Your task to perform on an android device: toggle improve location accuracy Image 0: 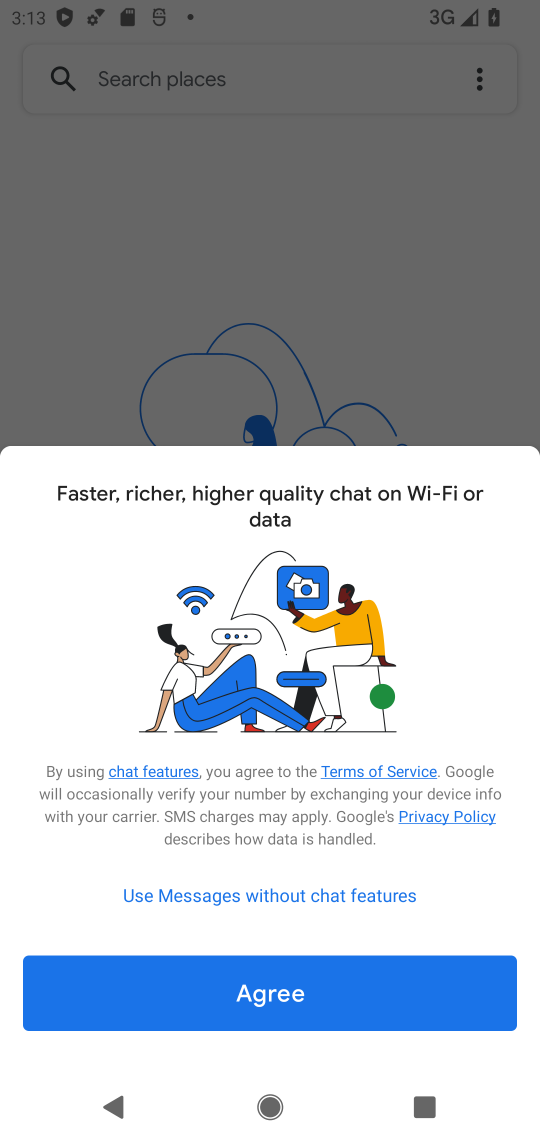
Step 0: press home button
Your task to perform on an android device: toggle improve location accuracy Image 1: 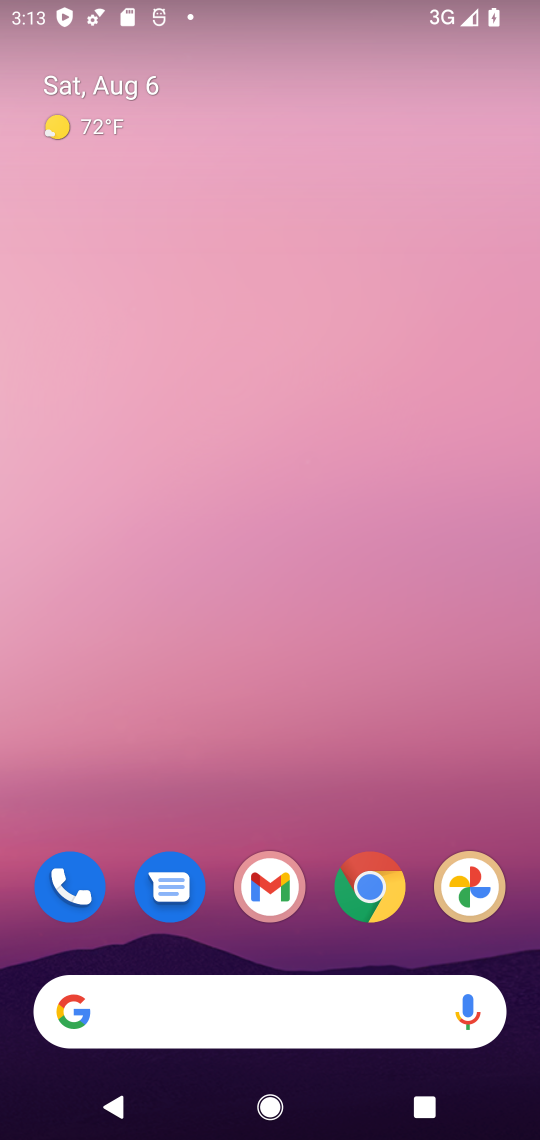
Step 1: click (533, 712)
Your task to perform on an android device: toggle improve location accuracy Image 2: 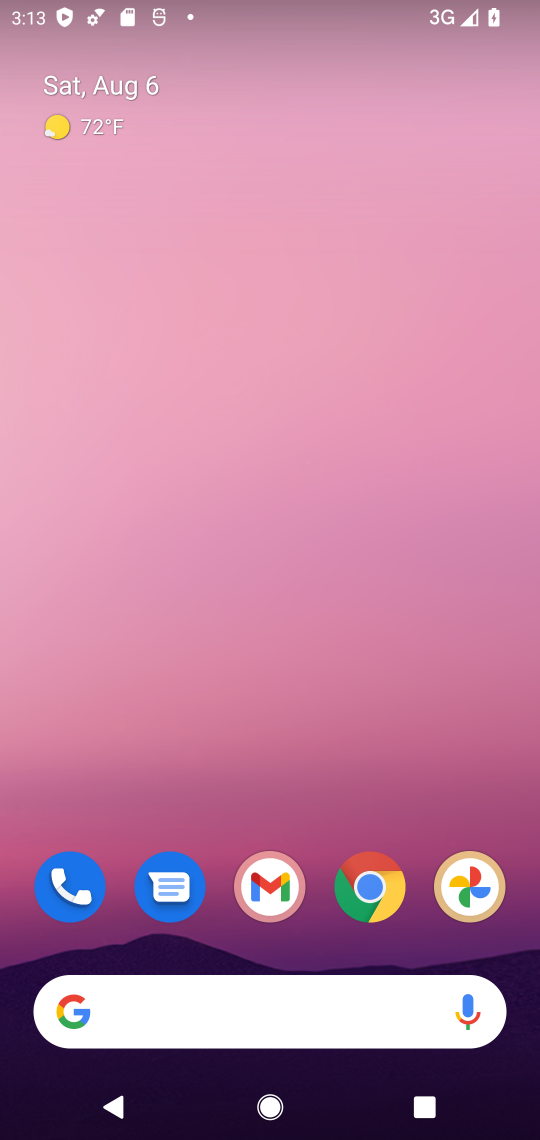
Step 2: drag from (402, 769) to (382, 231)
Your task to perform on an android device: toggle improve location accuracy Image 3: 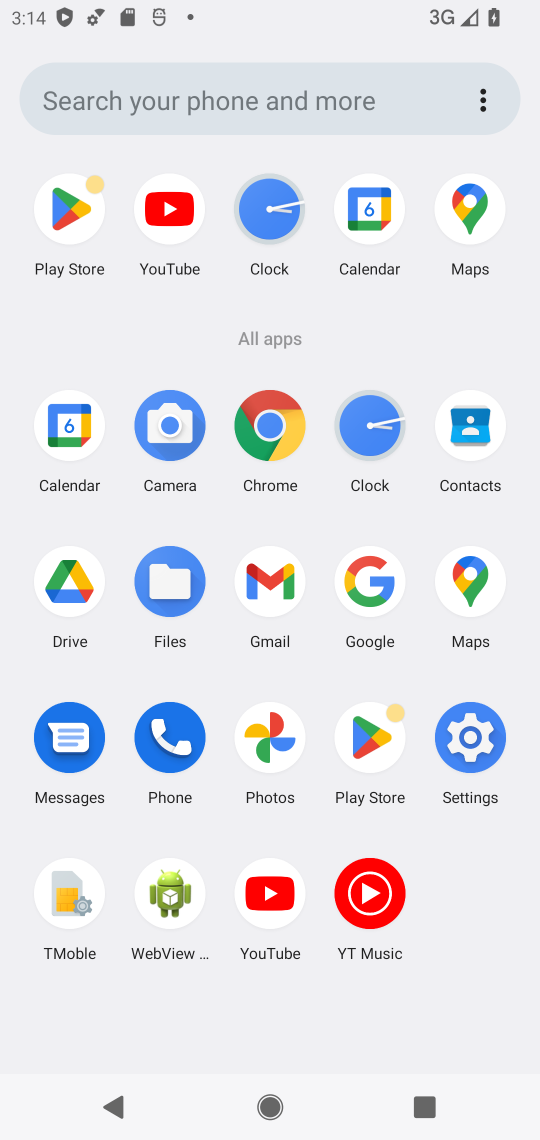
Step 3: click (470, 739)
Your task to perform on an android device: toggle improve location accuracy Image 4: 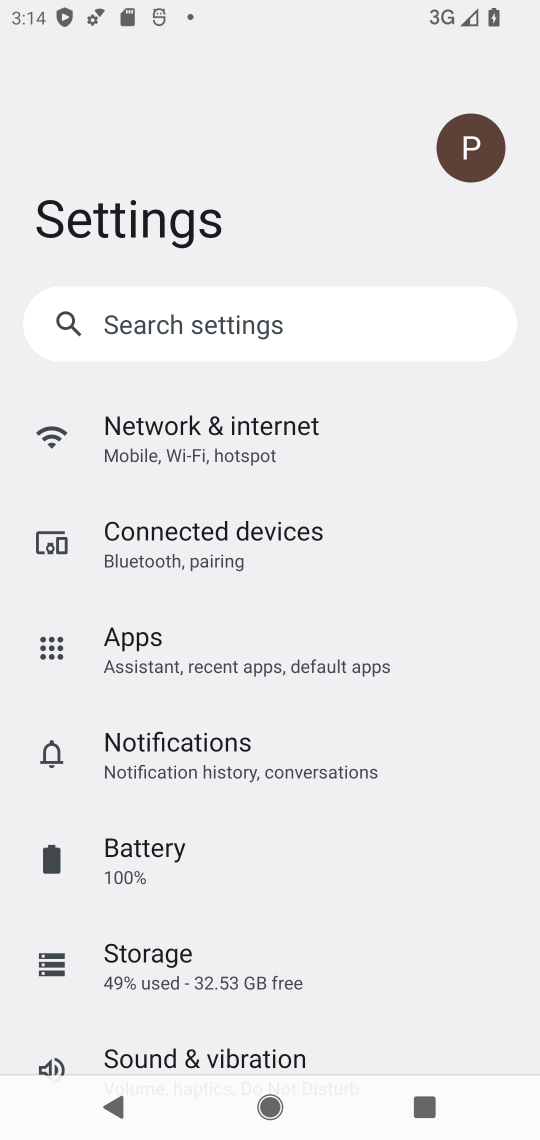
Step 4: drag from (437, 894) to (451, 762)
Your task to perform on an android device: toggle improve location accuracy Image 5: 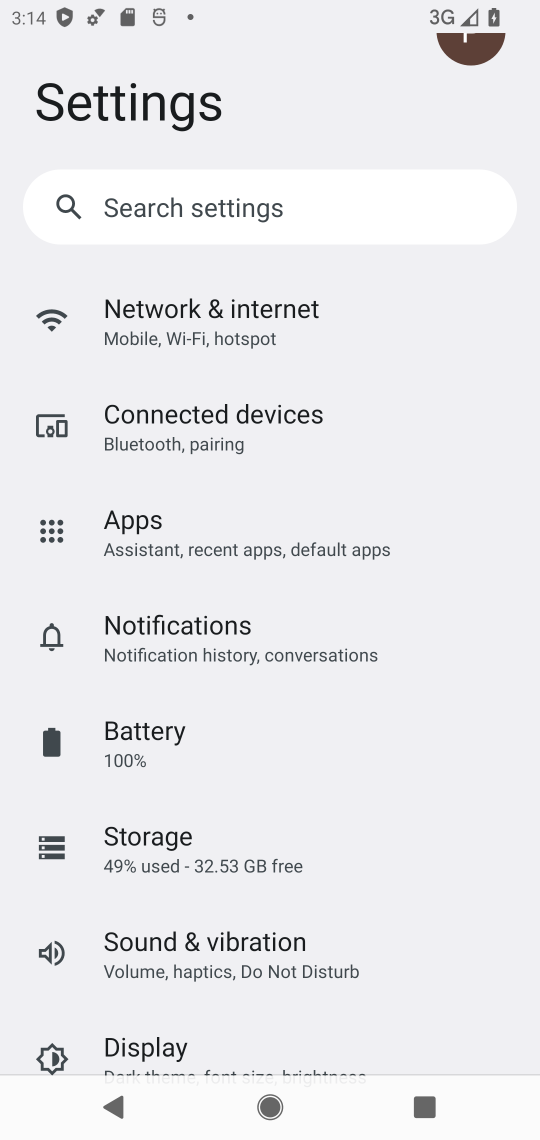
Step 5: drag from (418, 904) to (434, 797)
Your task to perform on an android device: toggle improve location accuracy Image 6: 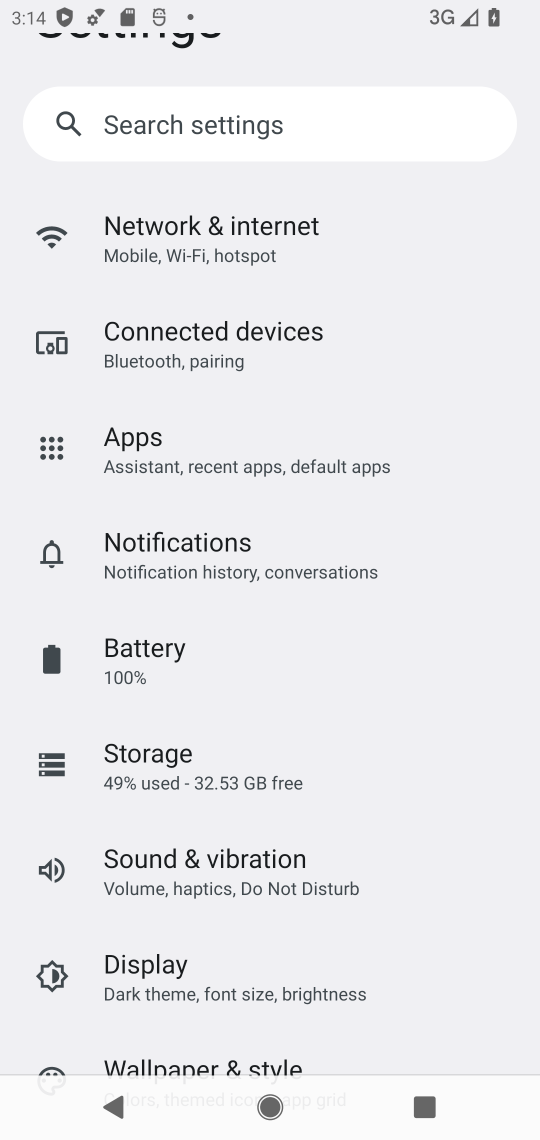
Step 6: drag from (441, 964) to (464, 820)
Your task to perform on an android device: toggle improve location accuracy Image 7: 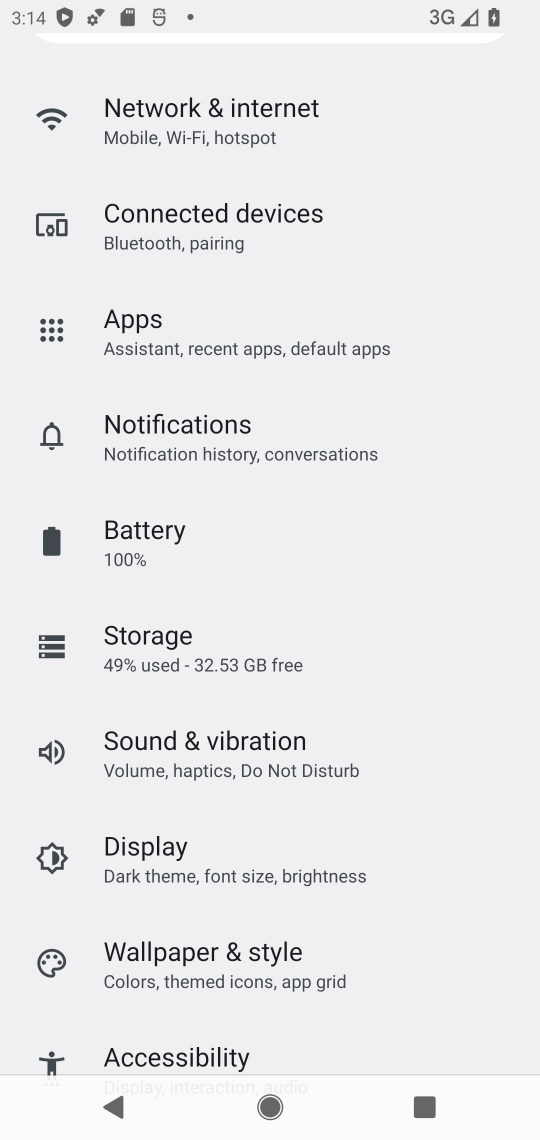
Step 7: drag from (438, 947) to (452, 830)
Your task to perform on an android device: toggle improve location accuracy Image 8: 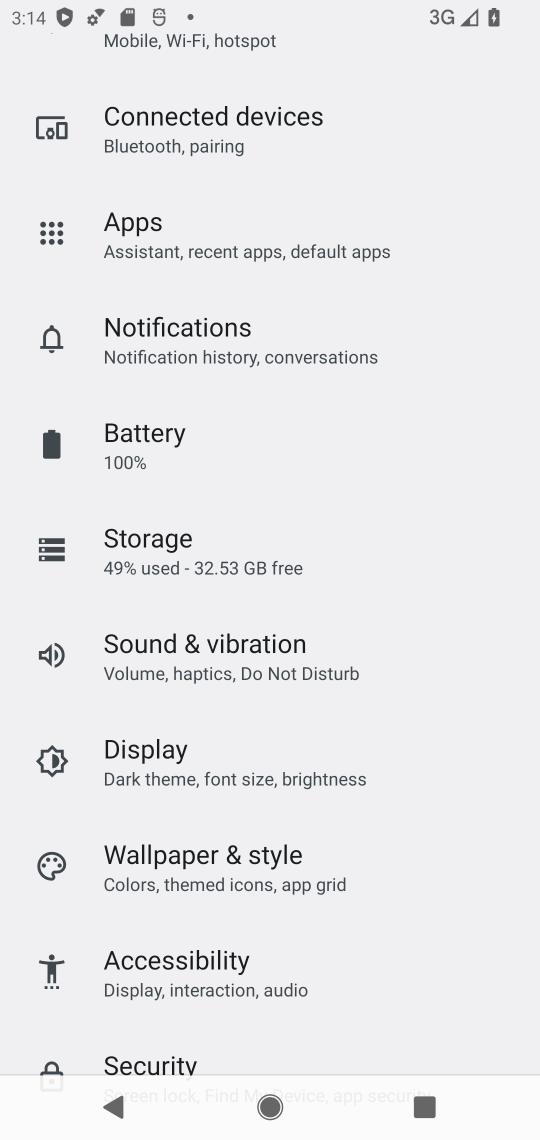
Step 8: drag from (443, 972) to (441, 784)
Your task to perform on an android device: toggle improve location accuracy Image 9: 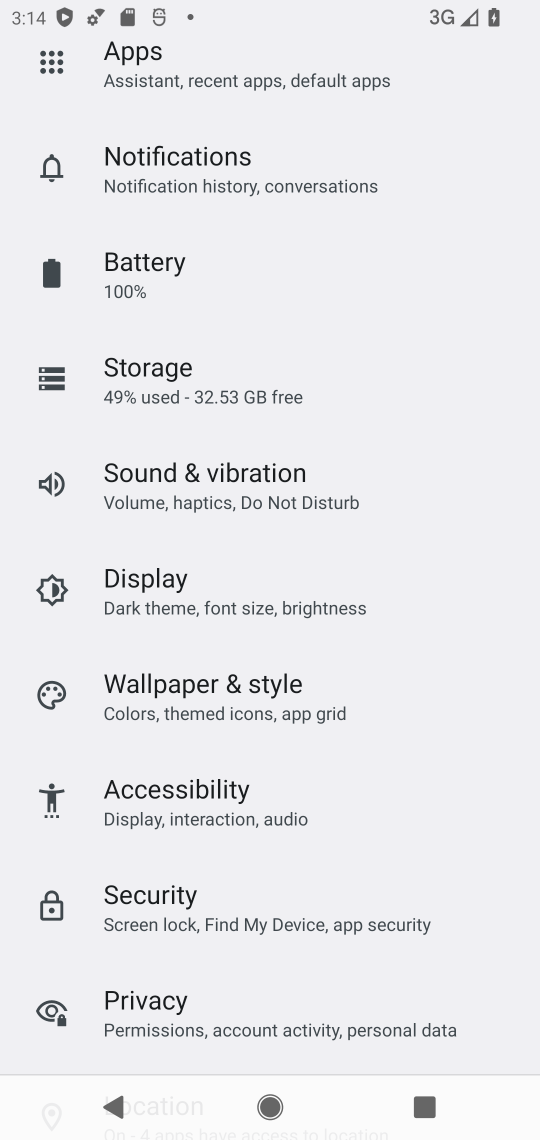
Step 9: drag from (424, 954) to (436, 763)
Your task to perform on an android device: toggle improve location accuracy Image 10: 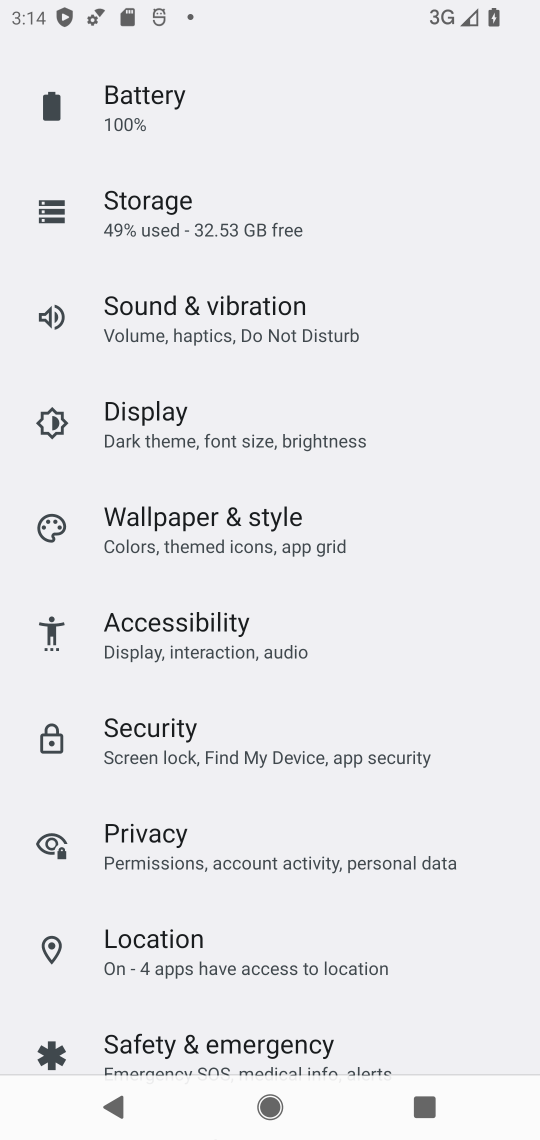
Step 10: drag from (441, 1000) to (467, 756)
Your task to perform on an android device: toggle improve location accuracy Image 11: 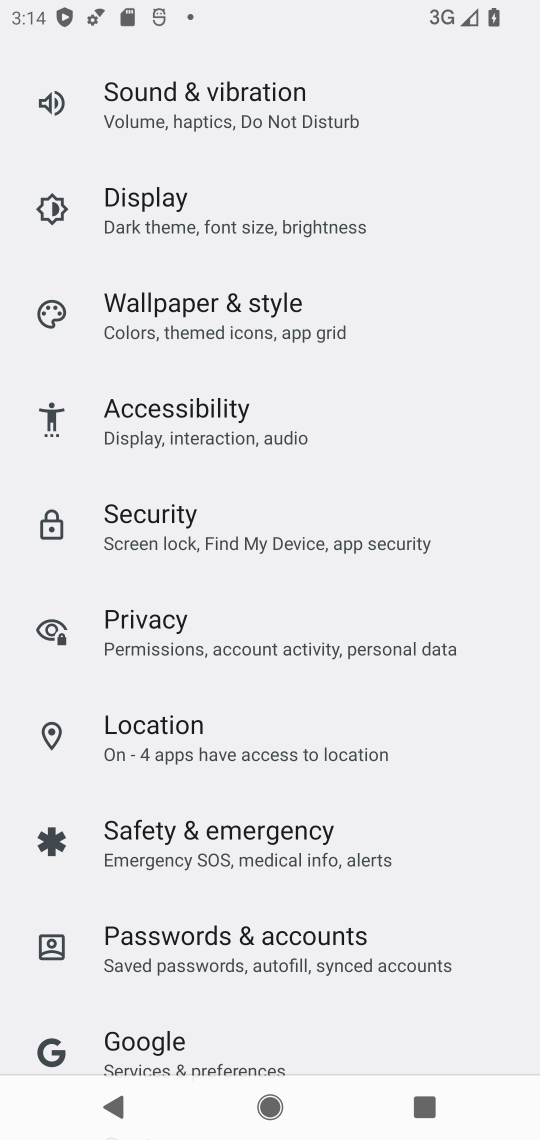
Step 11: drag from (442, 948) to (446, 716)
Your task to perform on an android device: toggle improve location accuracy Image 12: 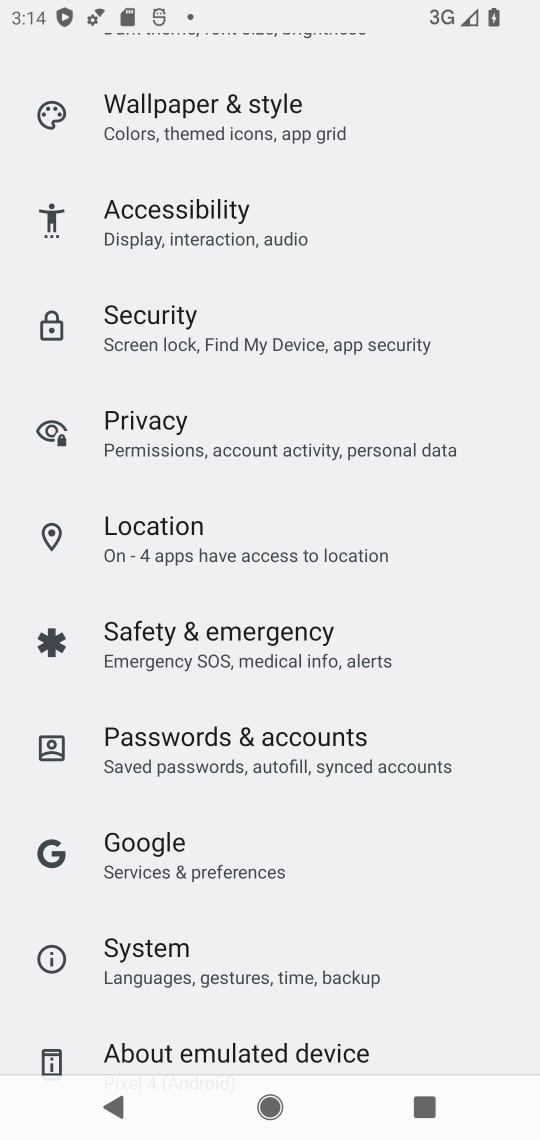
Step 12: click (288, 531)
Your task to perform on an android device: toggle improve location accuracy Image 13: 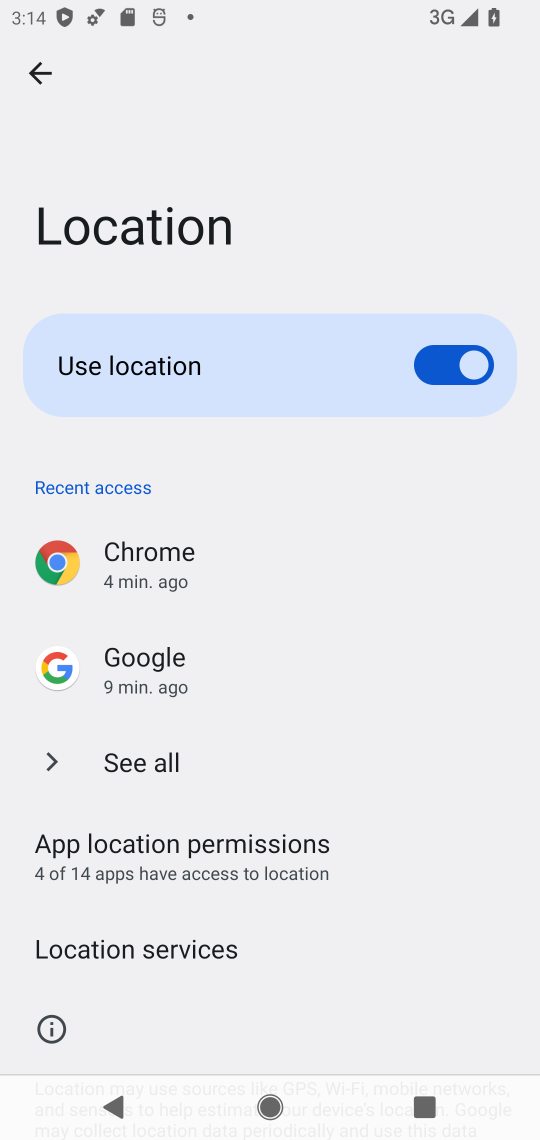
Step 13: click (190, 945)
Your task to perform on an android device: toggle improve location accuracy Image 14: 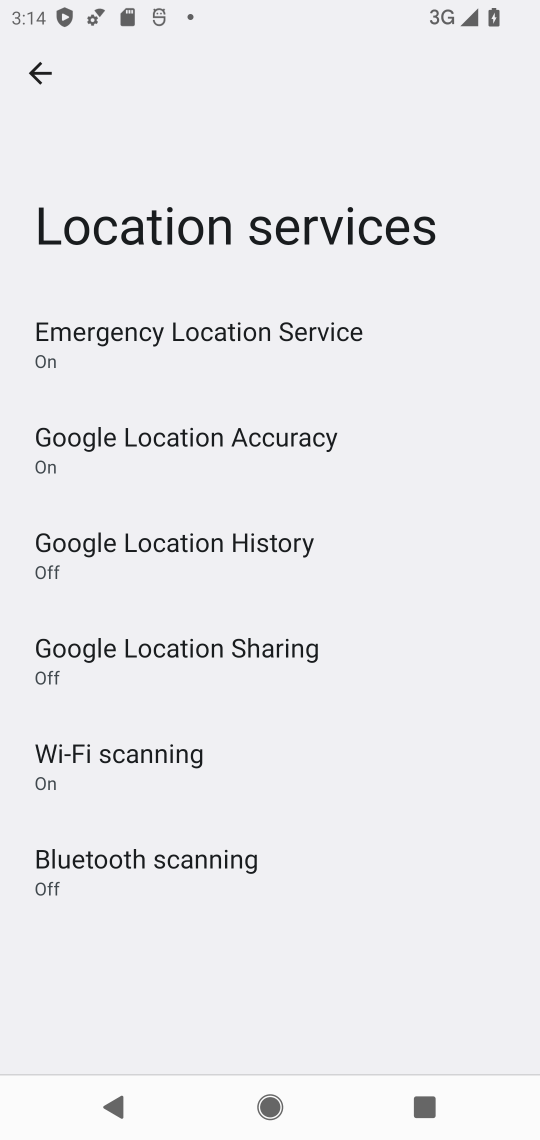
Step 14: click (281, 449)
Your task to perform on an android device: toggle improve location accuracy Image 15: 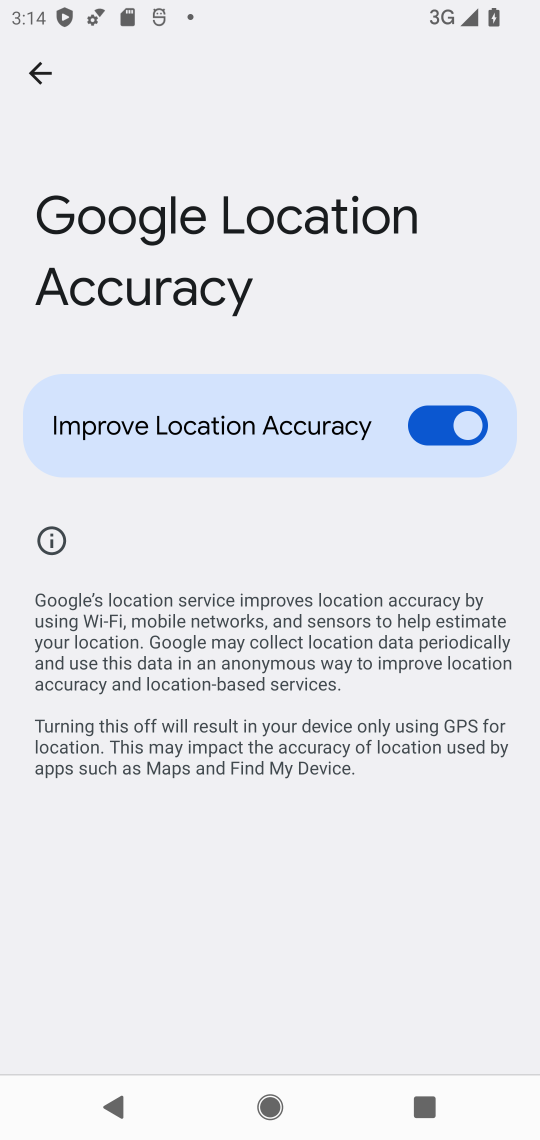
Step 15: click (447, 427)
Your task to perform on an android device: toggle improve location accuracy Image 16: 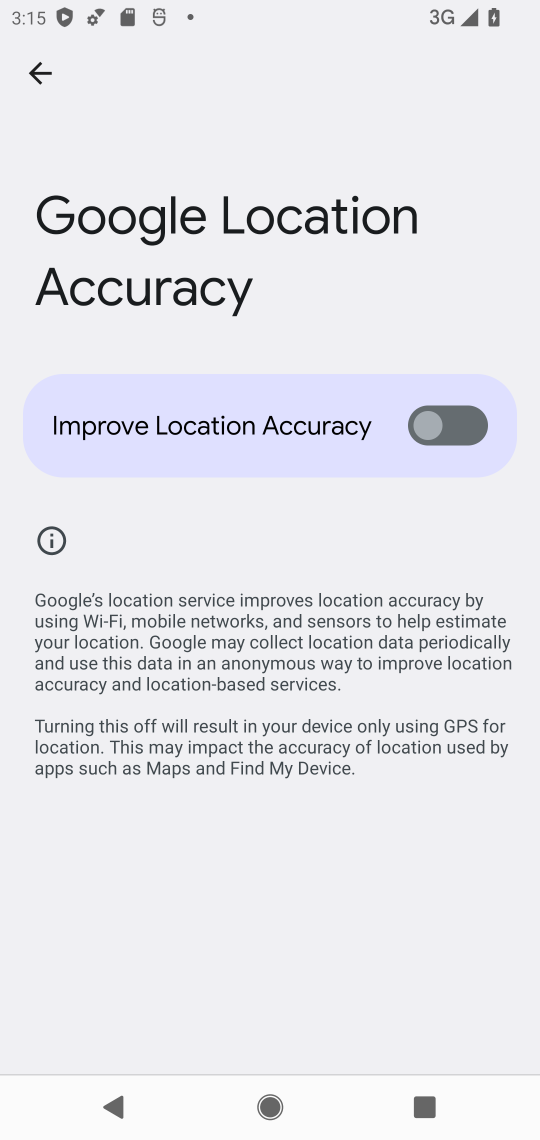
Step 16: task complete